Your task to perform on an android device: empty trash in the gmail app Image 0: 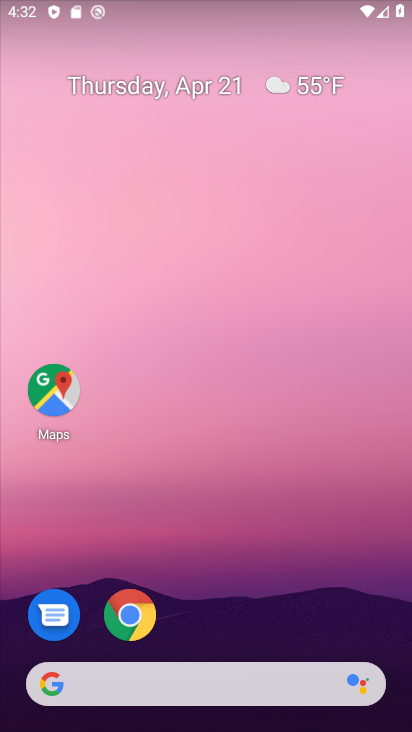
Step 0: drag from (287, 616) to (180, 14)
Your task to perform on an android device: empty trash in the gmail app Image 1: 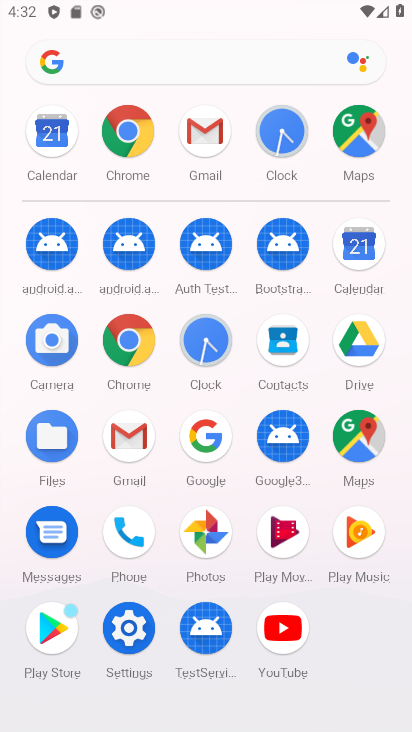
Step 1: drag from (9, 581) to (32, 286)
Your task to perform on an android device: empty trash in the gmail app Image 2: 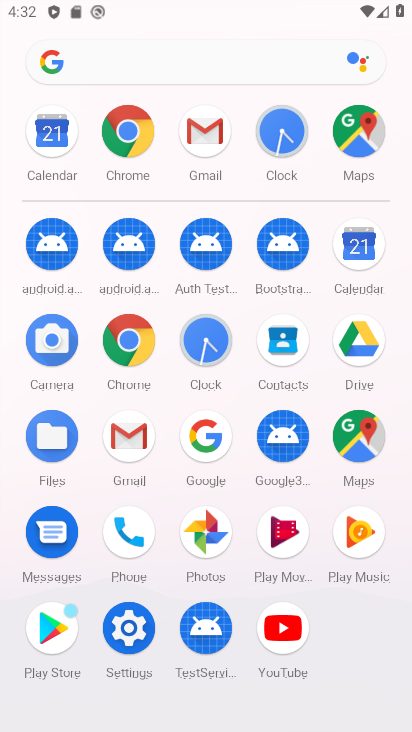
Step 2: click (125, 437)
Your task to perform on an android device: empty trash in the gmail app Image 3: 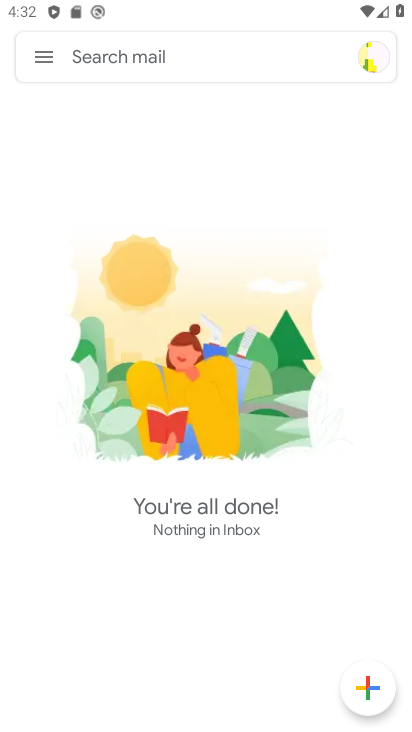
Step 3: click (37, 51)
Your task to perform on an android device: empty trash in the gmail app Image 4: 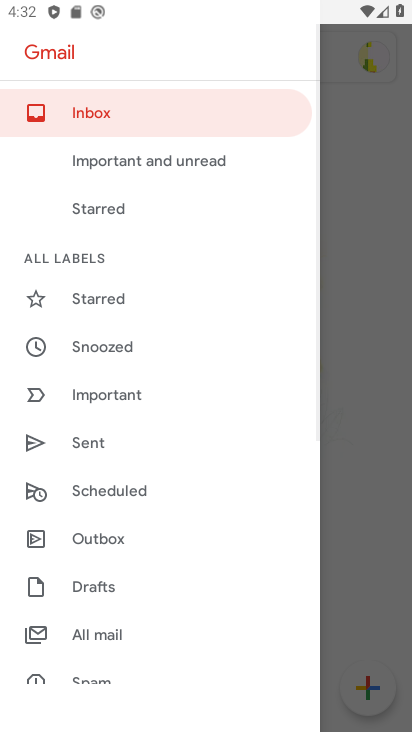
Step 4: drag from (168, 574) to (198, 161)
Your task to perform on an android device: empty trash in the gmail app Image 5: 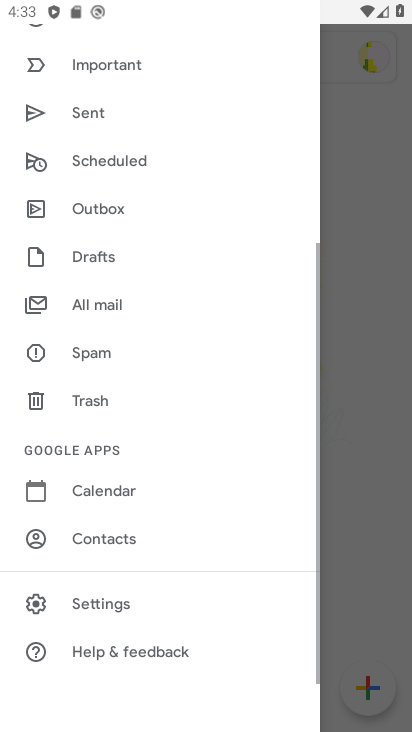
Step 5: drag from (156, 509) to (169, 232)
Your task to perform on an android device: empty trash in the gmail app Image 6: 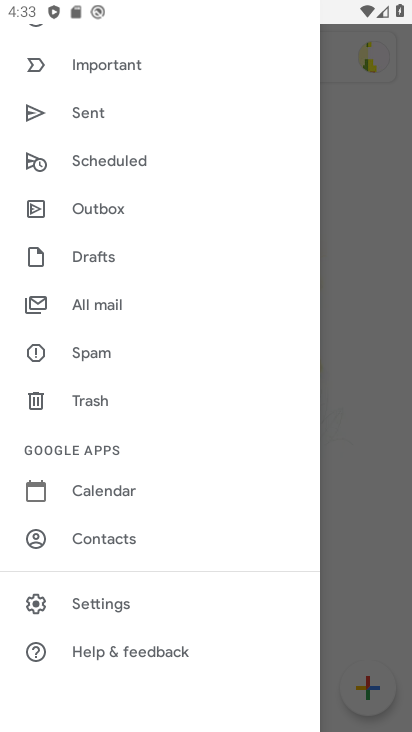
Step 6: click (108, 390)
Your task to perform on an android device: empty trash in the gmail app Image 7: 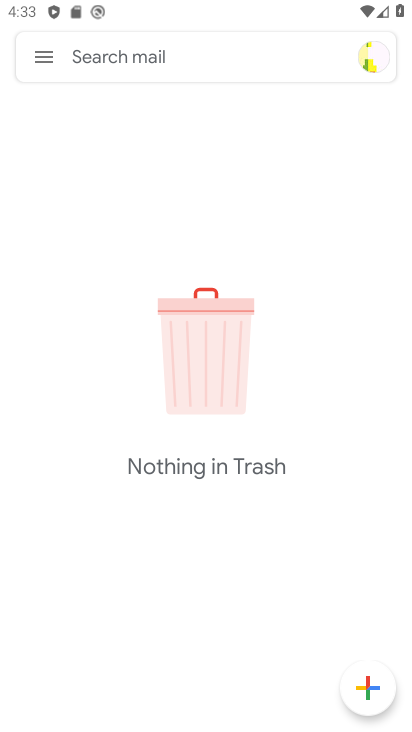
Step 7: task complete